Your task to perform on an android device: Go to ESPN.com Image 0: 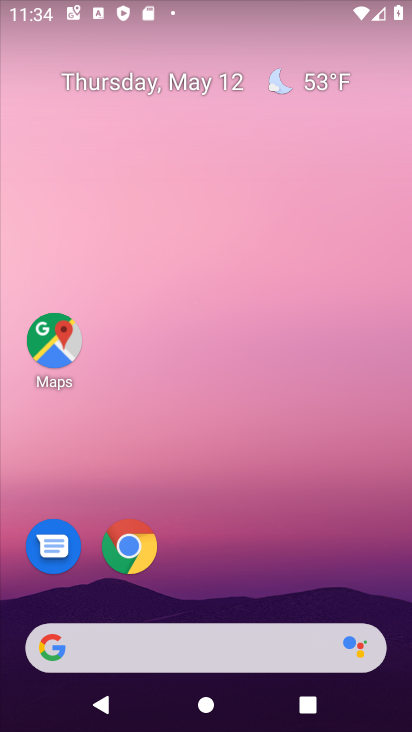
Step 0: drag from (262, 685) to (206, 201)
Your task to perform on an android device: Go to ESPN.com Image 1: 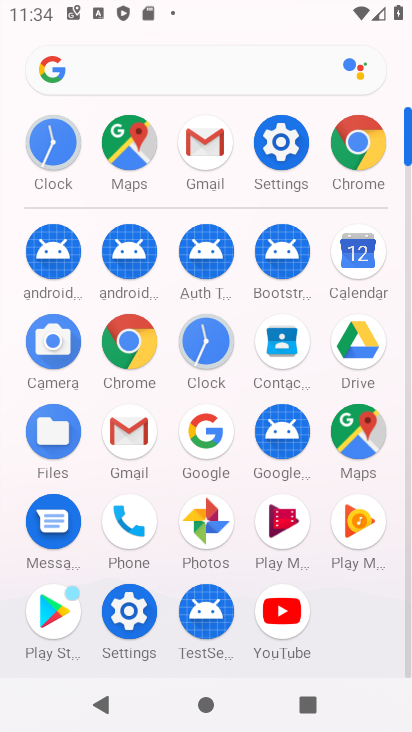
Step 1: click (339, 157)
Your task to perform on an android device: Go to ESPN.com Image 2: 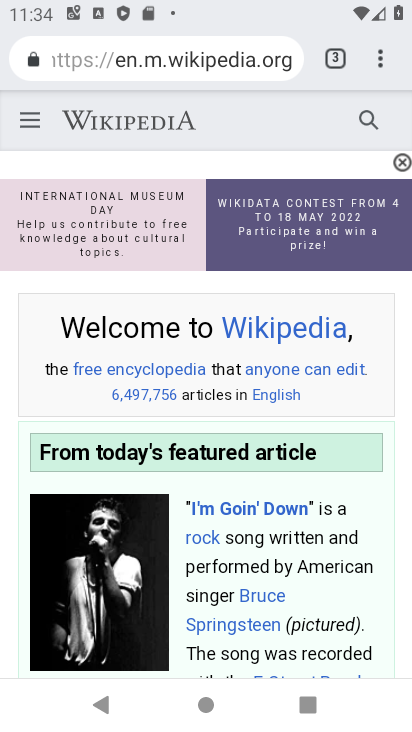
Step 2: click (331, 58)
Your task to perform on an android device: Go to ESPN.com Image 3: 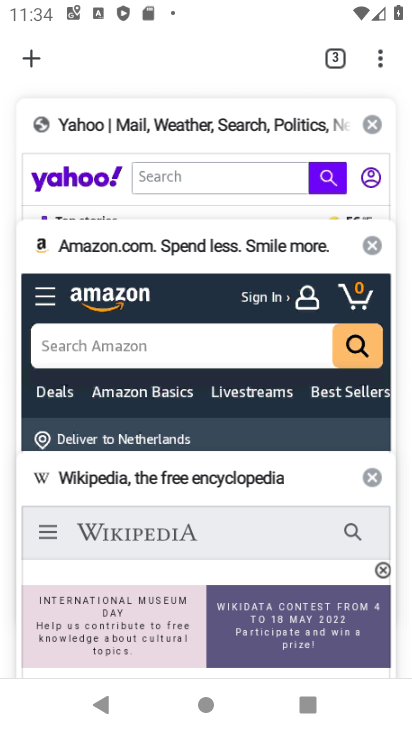
Step 3: click (40, 60)
Your task to perform on an android device: Go to ESPN.com Image 4: 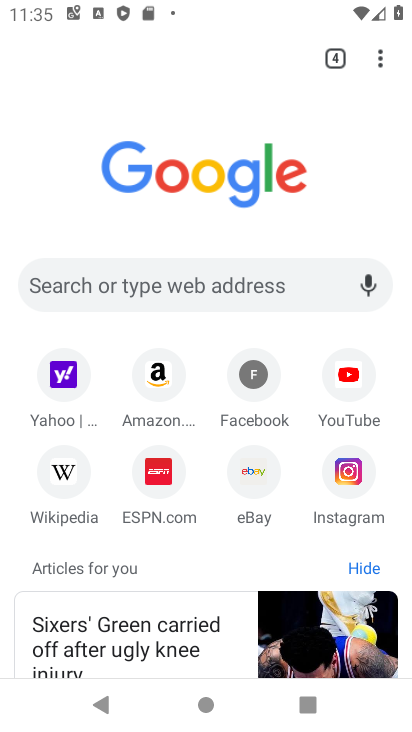
Step 4: click (154, 485)
Your task to perform on an android device: Go to ESPN.com Image 5: 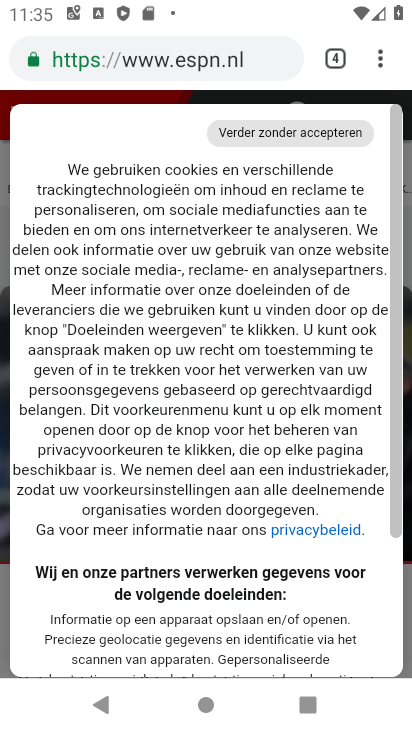
Step 5: drag from (282, 568) to (296, 413)
Your task to perform on an android device: Go to ESPN.com Image 6: 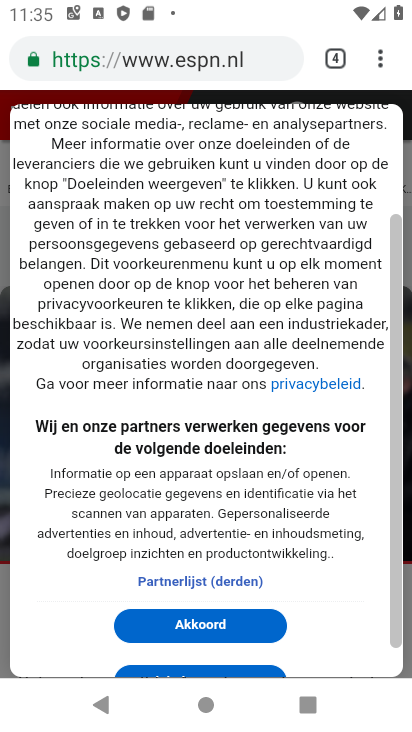
Step 6: click (225, 620)
Your task to perform on an android device: Go to ESPN.com Image 7: 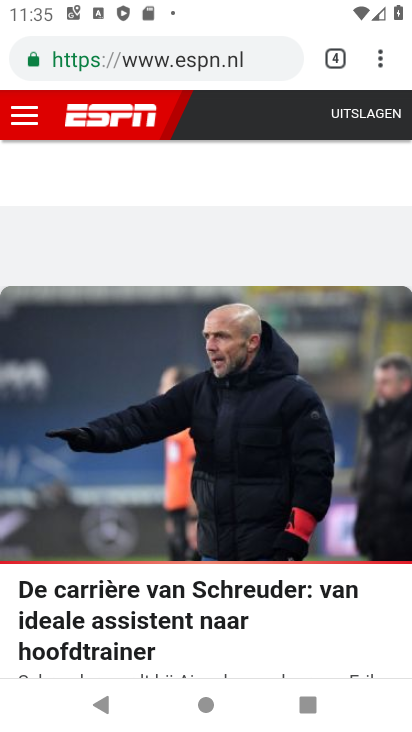
Step 7: task complete